Your task to perform on an android device: turn off translation in the chrome app Image 0: 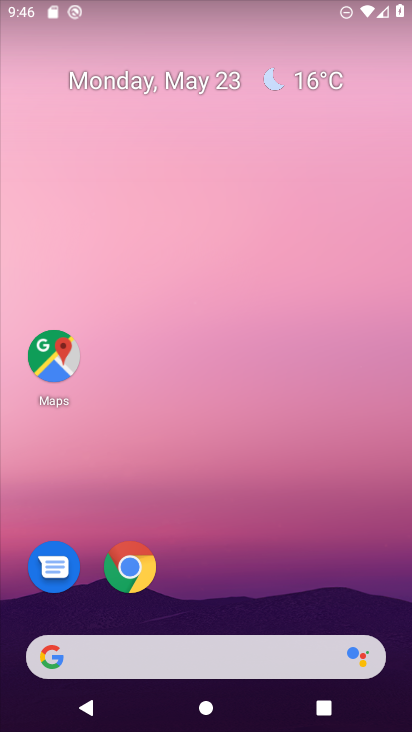
Step 0: click (376, 450)
Your task to perform on an android device: turn off translation in the chrome app Image 1: 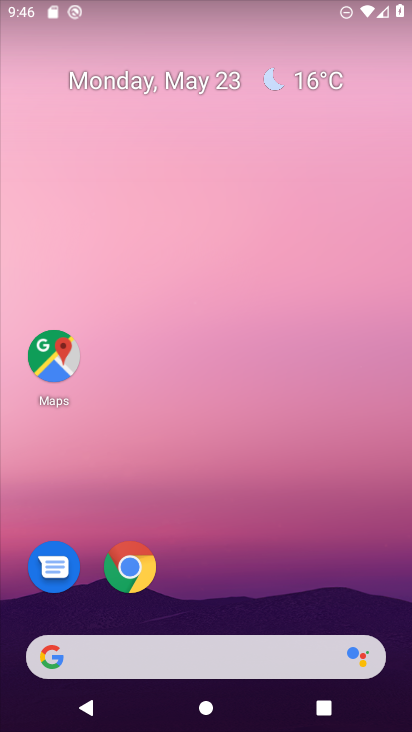
Step 1: drag from (219, 581) to (244, 442)
Your task to perform on an android device: turn off translation in the chrome app Image 2: 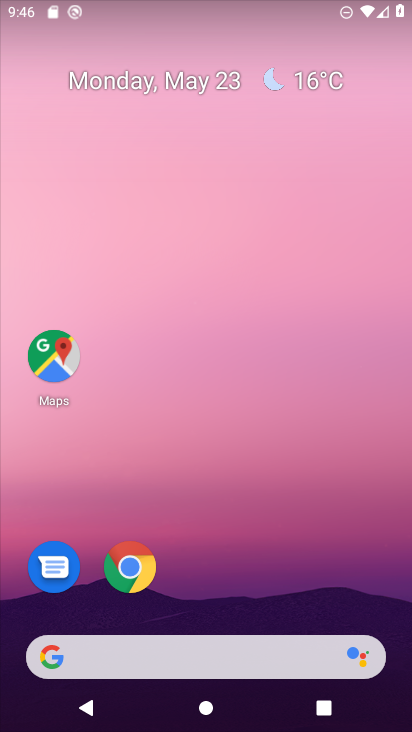
Step 2: drag from (196, 613) to (229, 122)
Your task to perform on an android device: turn off translation in the chrome app Image 3: 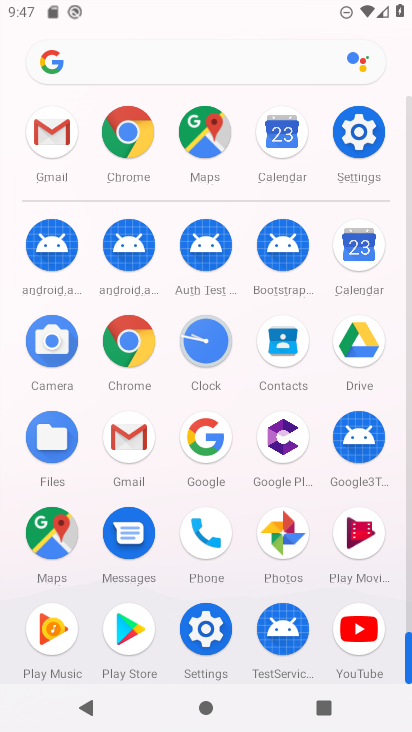
Step 3: click (132, 349)
Your task to perform on an android device: turn off translation in the chrome app Image 4: 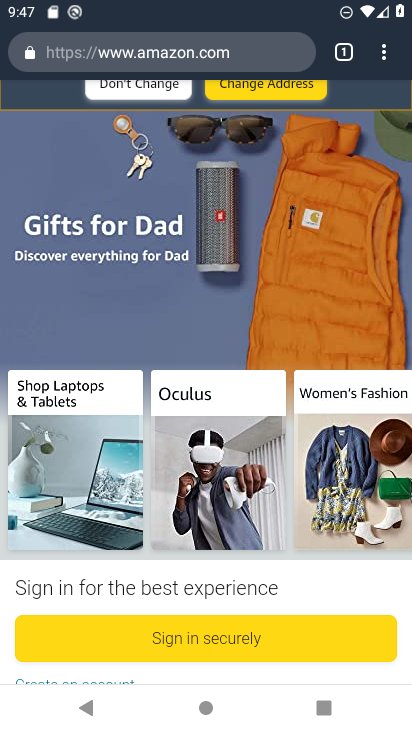
Step 4: drag from (190, 580) to (193, 137)
Your task to perform on an android device: turn off translation in the chrome app Image 5: 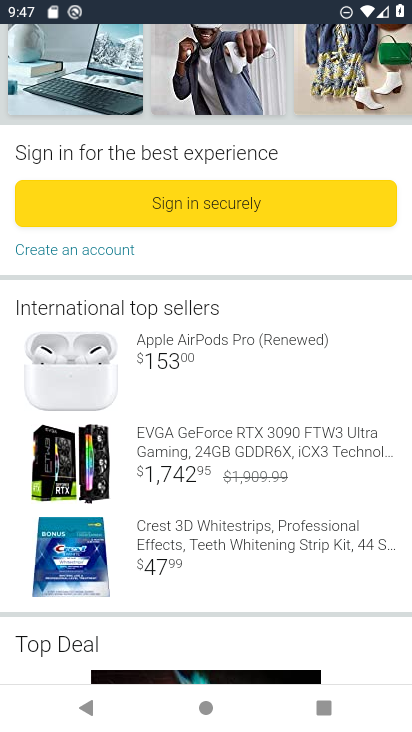
Step 5: drag from (226, 523) to (310, 409)
Your task to perform on an android device: turn off translation in the chrome app Image 6: 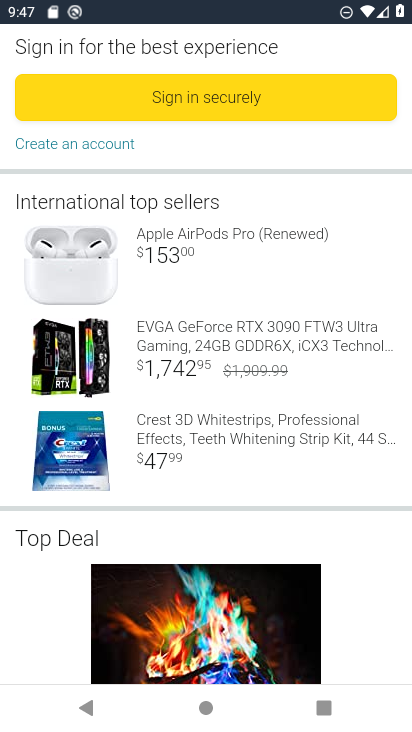
Step 6: drag from (219, 558) to (320, 103)
Your task to perform on an android device: turn off translation in the chrome app Image 7: 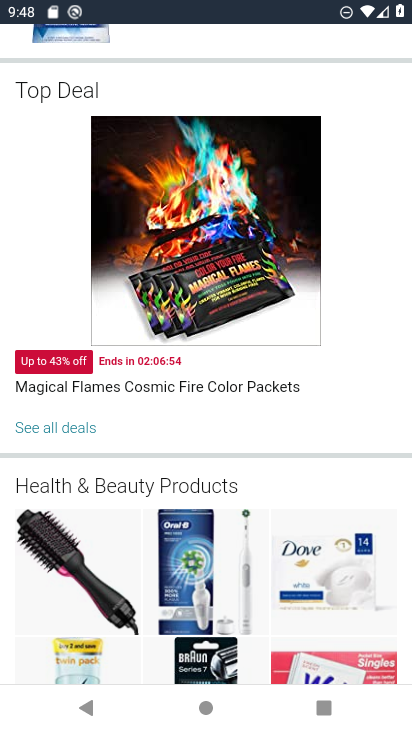
Step 7: drag from (162, 635) to (215, 157)
Your task to perform on an android device: turn off translation in the chrome app Image 8: 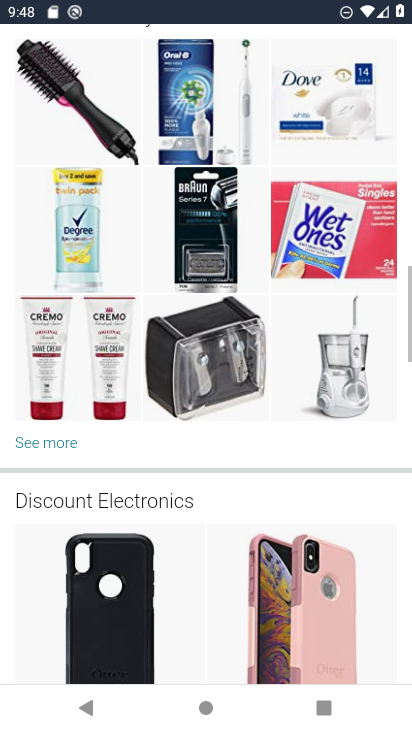
Step 8: drag from (215, 123) to (407, 562)
Your task to perform on an android device: turn off translation in the chrome app Image 9: 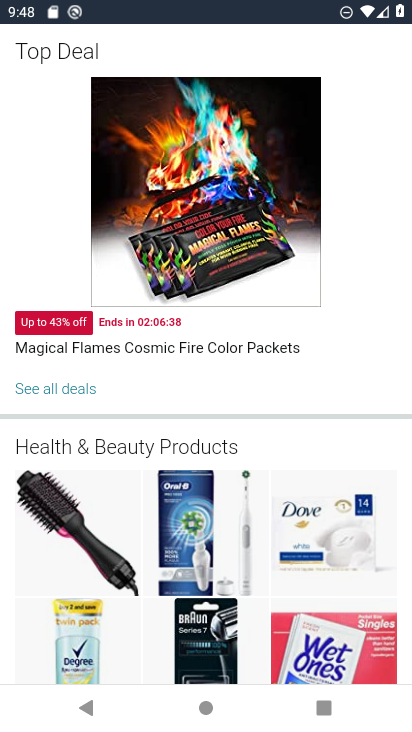
Step 9: drag from (331, 80) to (344, 685)
Your task to perform on an android device: turn off translation in the chrome app Image 10: 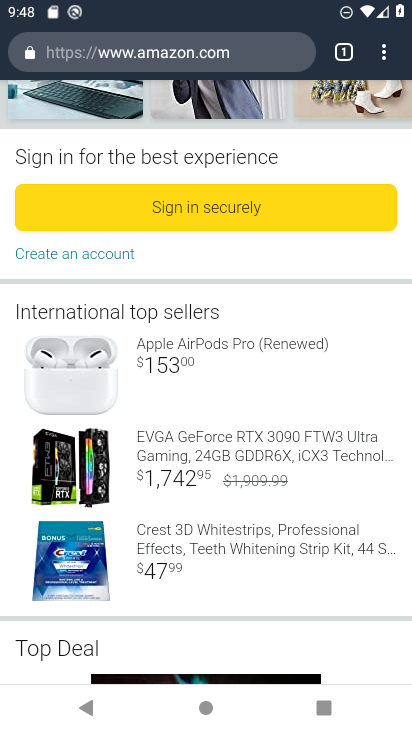
Step 10: click (389, 41)
Your task to perform on an android device: turn off translation in the chrome app Image 11: 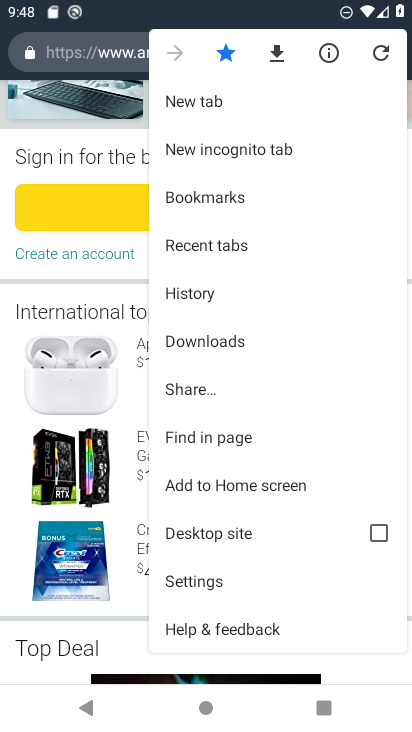
Step 11: click (220, 581)
Your task to perform on an android device: turn off translation in the chrome app Image 12: 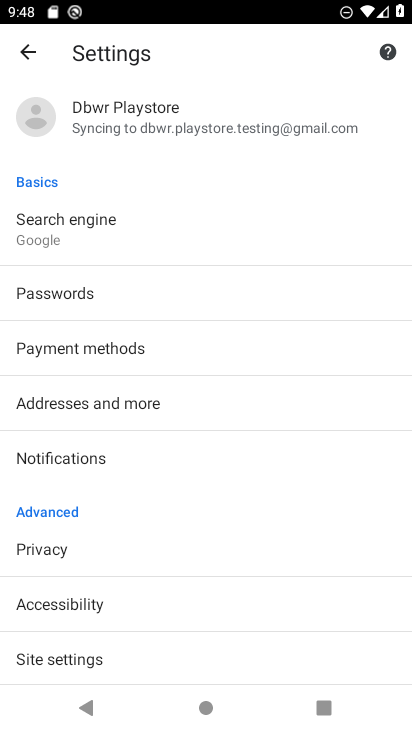
Step 12: drag from (118, 675) to (166, 277)
Your task to perform on an android device: turn off translation in the chrome app Image 13: 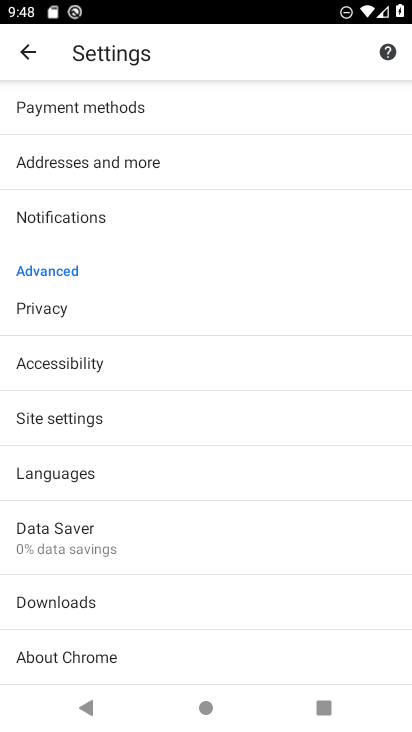
Step 13: click (141, 526)
Your task to perform on an android device: turn off translation in the chrome app Image 14: 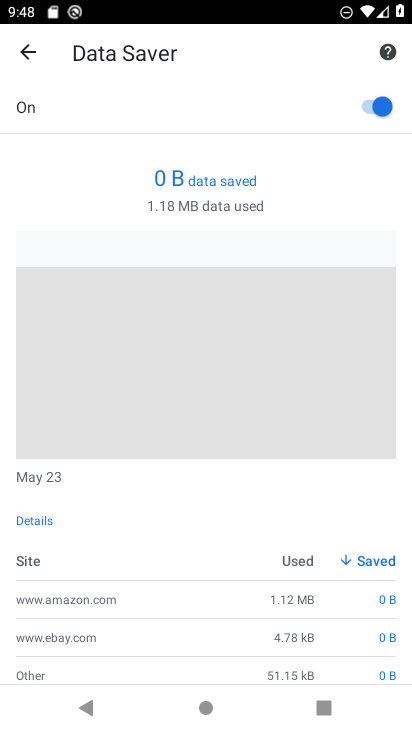
Step 14: click (386, 100)
Your task to perform on an android device: turn off translation in the chrome app Image 15: 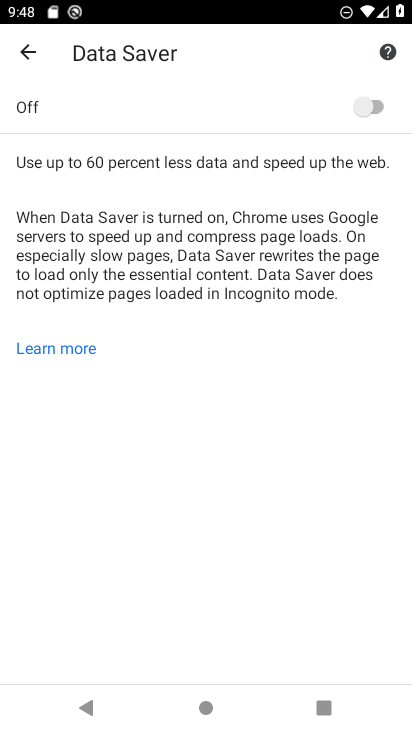
Step 15: click (368, 108)
Your task to perform on an android device: turn off translation in the chrome app Image 16: 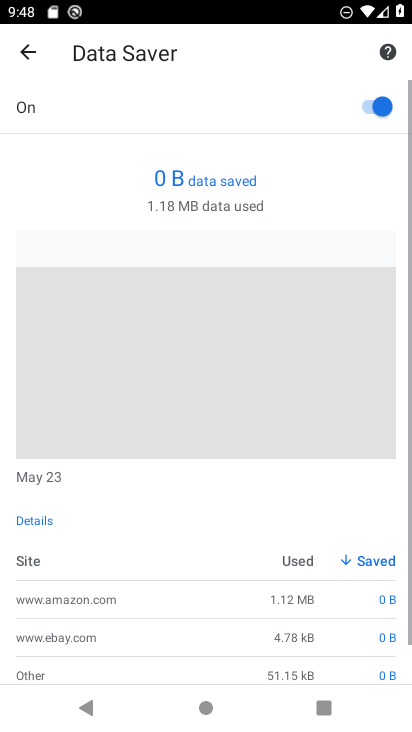
Step 16: click (30, 41)
Your task to perform on an android device: turn off translation in the chrome app Image 17: 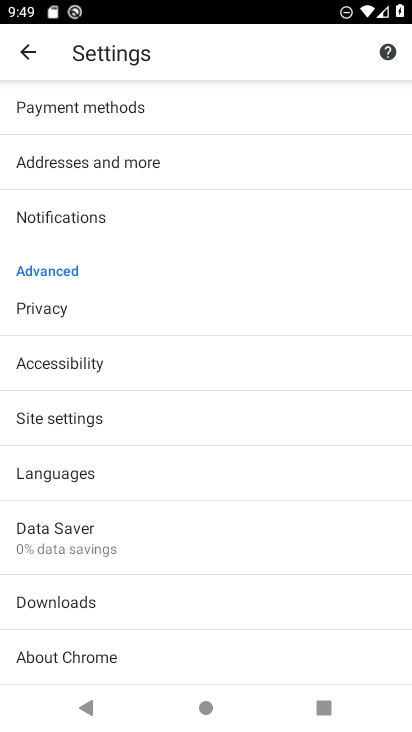
Step 17: click (109, 472)
Your task to perform on an android device: turn off translation in the chrome app Image 18: 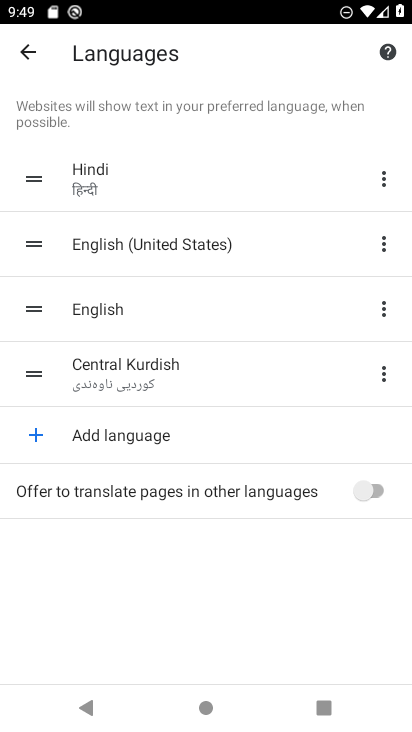
Step 18: task complete